Your task to perform on an android device: clear all cookies in the chrome app Image 0: 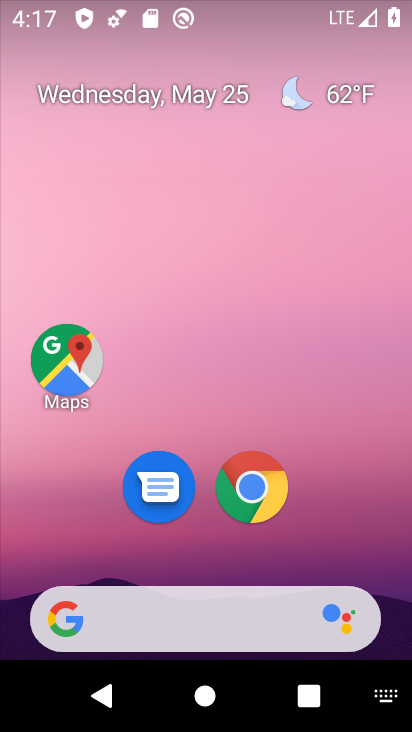
Step 0: click (265, 469)
Your task to perform on an android device: clear all cookies in the chrome app Image 1: 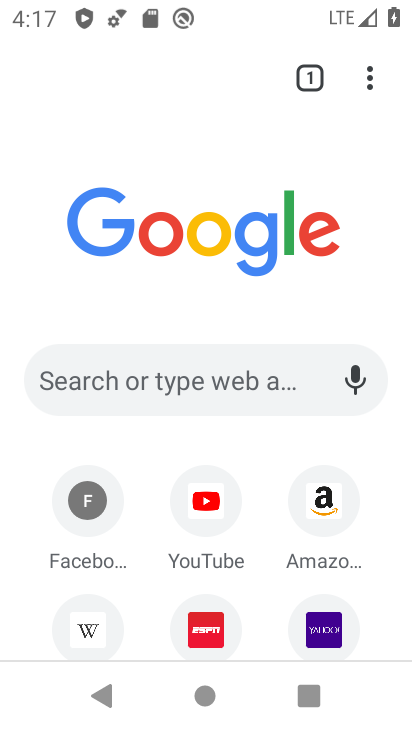
Step 1: click (378, 86)
Your task to perform on an android device: clear all cookies in the chrome app Image 2: 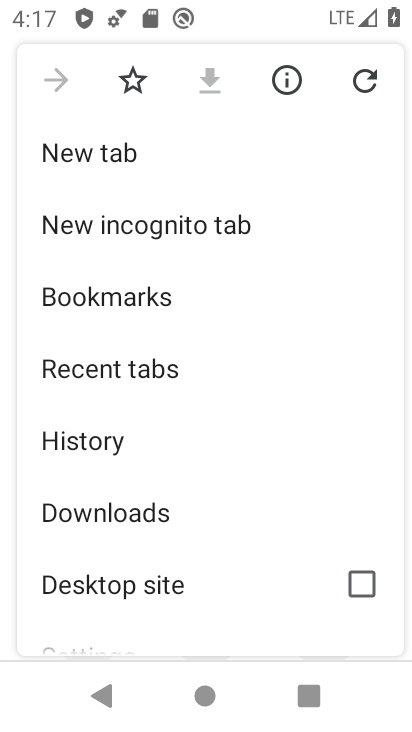
Step 2: drag from (161, 560) to (165, 134)
Your task to perform on an android device: clear all cookies in the chrome app Image 3: 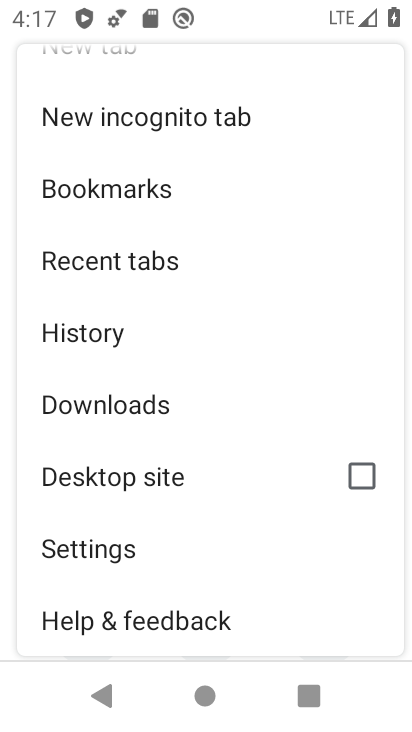
Step 3: click (131, 564)
Your task to perform on an android device: clear all cookies in the chrome app Image 4: 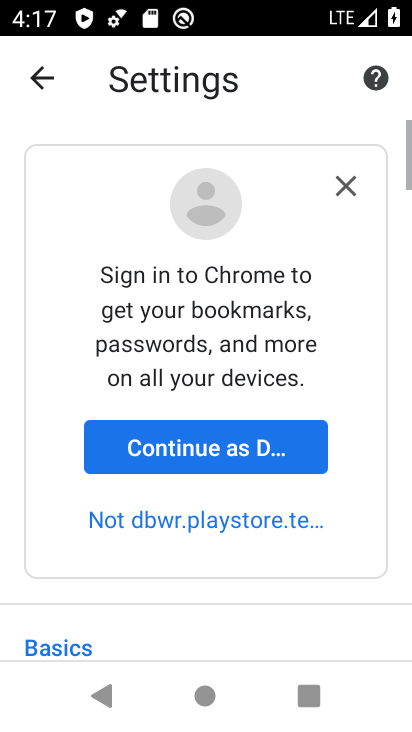
Step 4: drag from (205, 620) to (222, 43)
Your task to perform on an android device: clear all cookies in the chrome app Image 5: 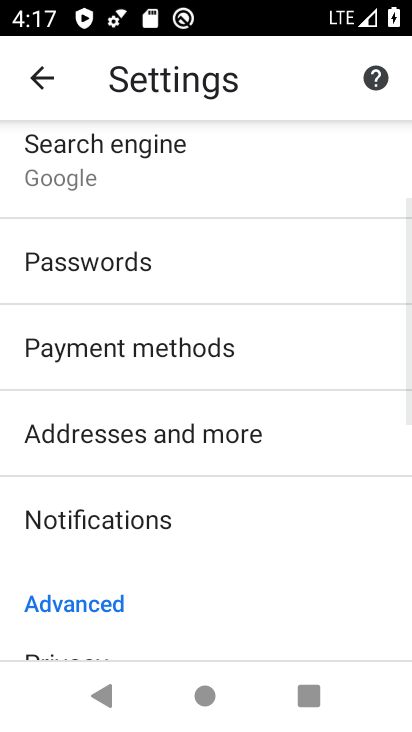
Step 5: drag from (191, 611) to (187, 258)
Your task to perform on an android device: clear all cookies in the chrome app Image 6: 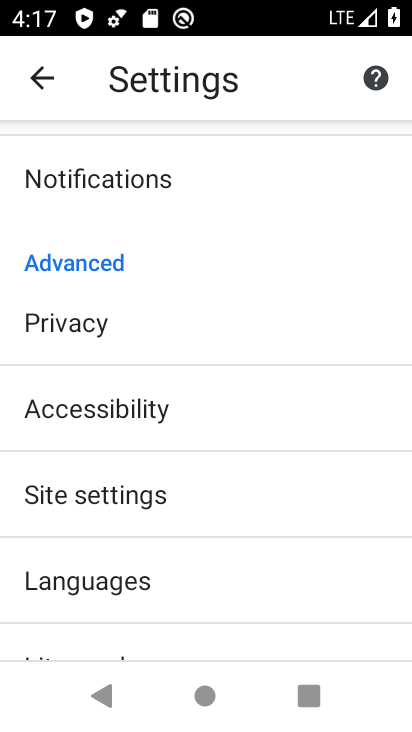
Step 6: click (113, 330)
Your task to perform on an android device: clear all cookies in the chrome app Image 7: 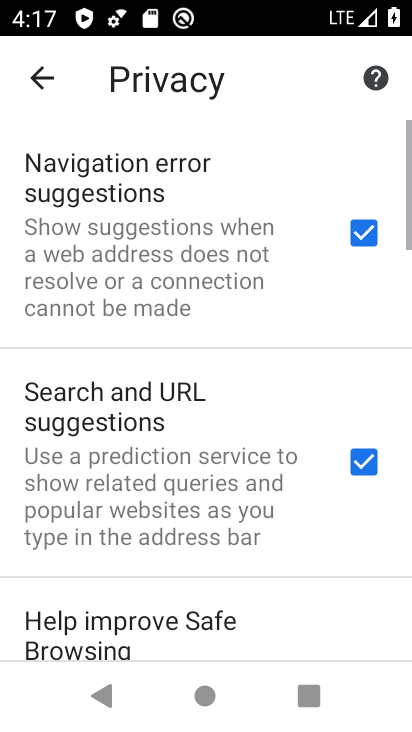
Step 7: drag from (274, 682) to (269, 121)
Your task to perform on an android device: clear all cookies in the chrome app Image 8: 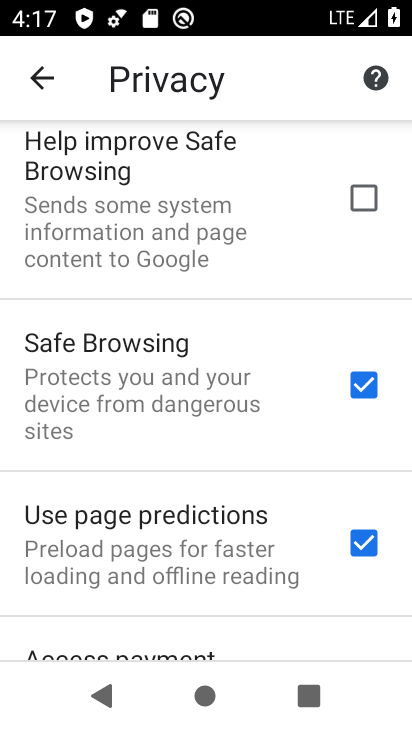
Step 8: drag from (273, 628) to (211, 15)
Your task to perform on an android device: clear all cookies in the chrome app Image 9: 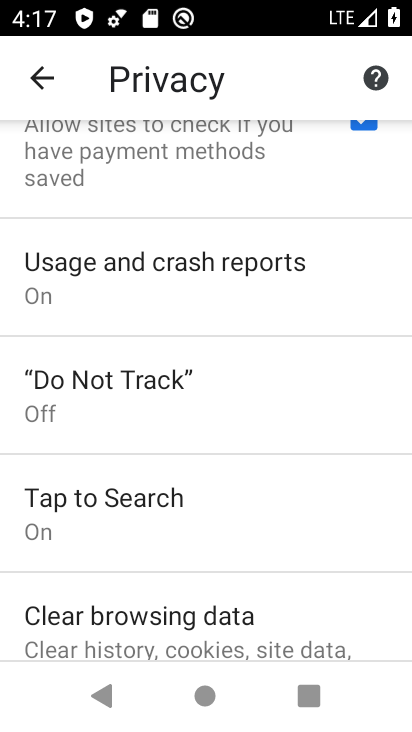
Step 9: drag from (262, 644) to (252, 260)
Your task to perform on an android device: clear all cookies in the chrome app Image 10: 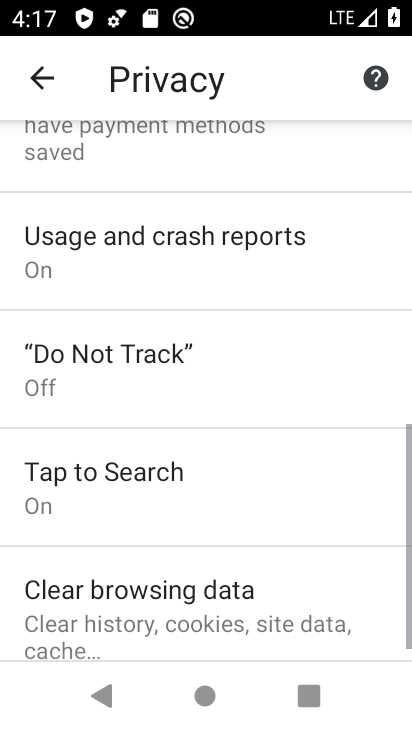
Step 10: drag from (272, 683) to (305, 305)
Your task to perform on an android device: clear all cookies in the chrome app Image 11: 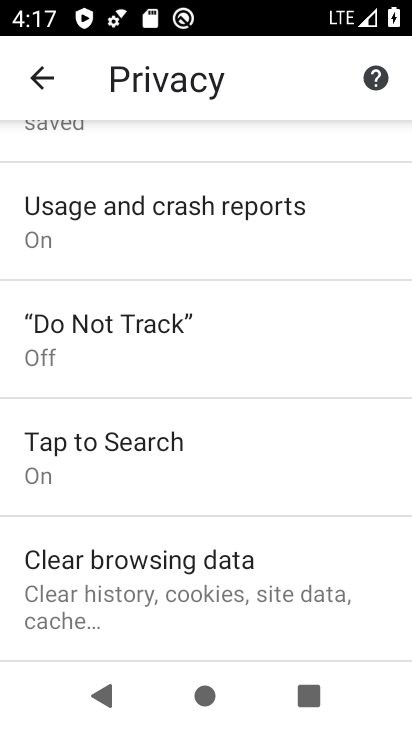
Step 11: click (277, 548)
Your task to perform on an android device: clear all cookies in the chrome app Image 12: 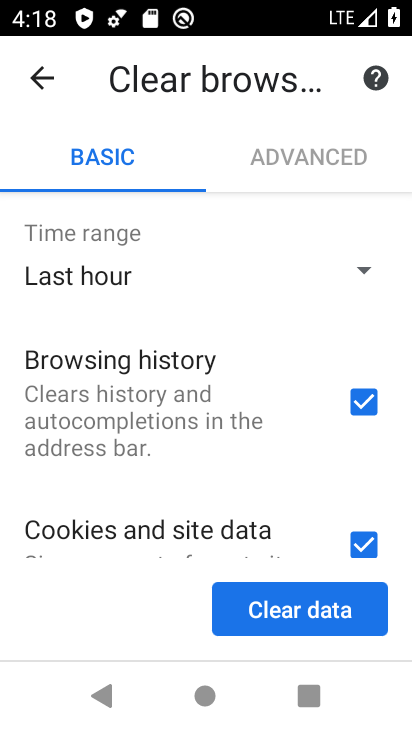
Step 12: click (359, 398)
Your task to perform on an android device: clear all cookies in the chrome app Image 13: 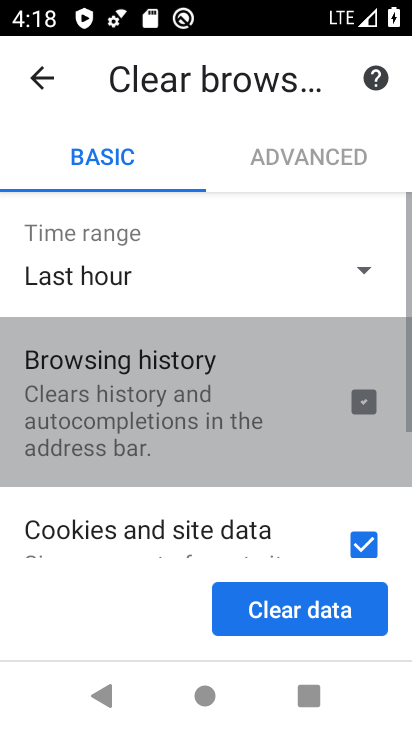
Step 13: click (326, 250)
Your task to perform on an android device: clear all cookies in the chrome app Image 14: 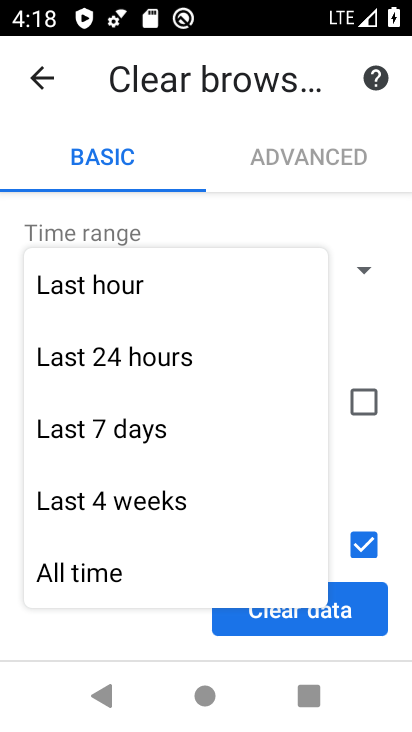
Step 14: click (129, 566)
Your task to perform on an android device: clear all cookies in the chrome app Image 15: 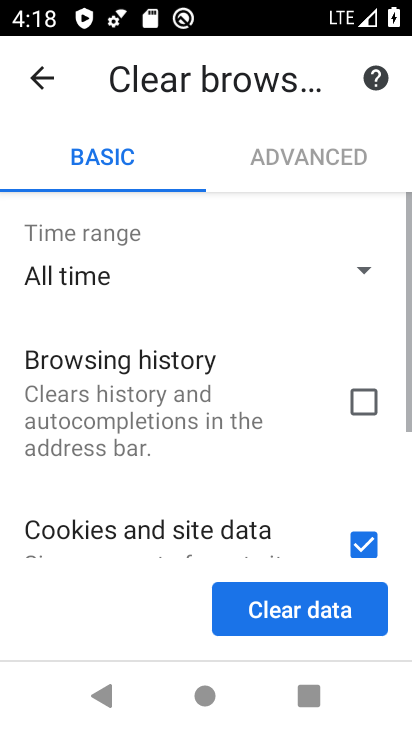
Step 15: drag from (299, 545) to (279, 137)
Your task to perform on an android device: clear all cookies in the chrome app Image 16: 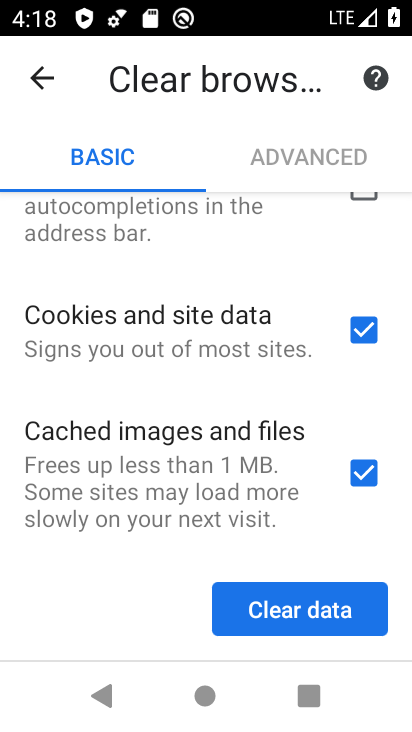
Step 16: click (375, 473)
Your task to perform on an android device: clear all cookies in the chrome app Image 17: 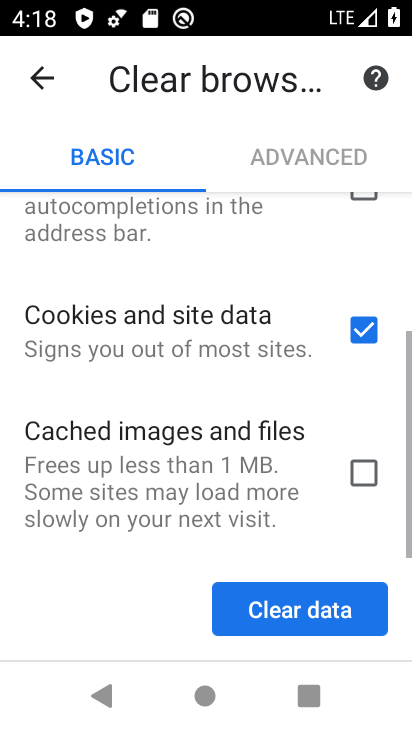
Step 17: click (326, 613)
Your task to perform on an android device: clear all cookies in the chrome app Image 18: 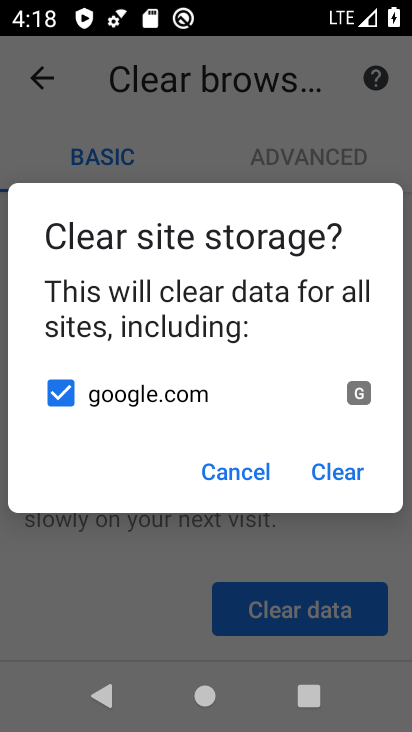
Step 18: click (340, 474)
Your task to perform on an android device: clear all cookies in the chrome app Image 19: 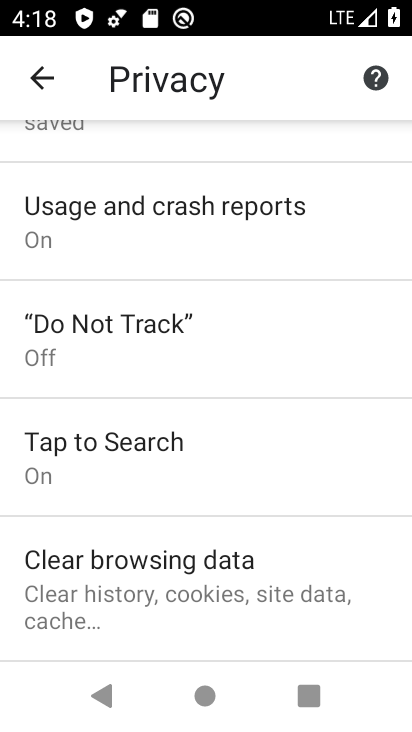
Step 19: task complete